Your task to perform on an android device: toggle wifi Image 0: 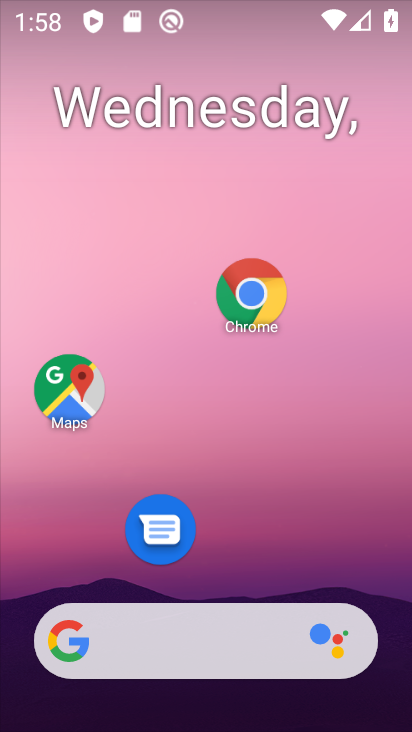
Step 0: drag from (262, 528) to (294, 171)
Your task to perform on an android device: toggle wifi Image 1: 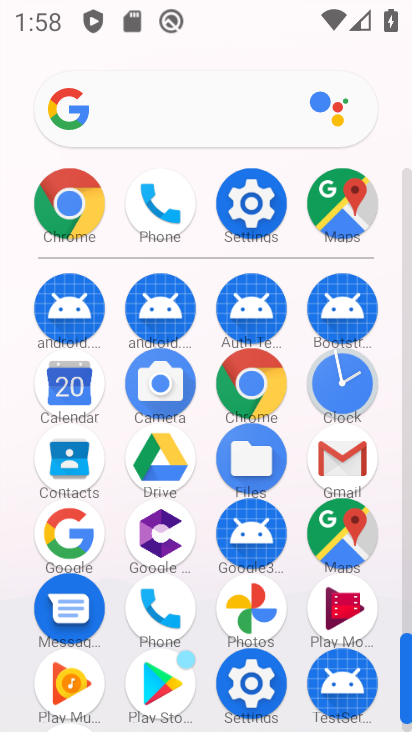
Step 1: click (272, 211)
Your task to perform on an android device: toggle wifi Image 2: 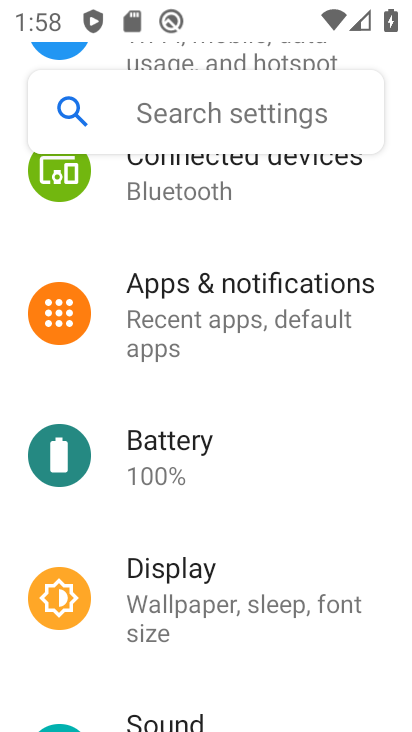
Step 2: drag from (272, 211) to (252, 544)
Your task to perform on an android device: toggle wifi Image 3: 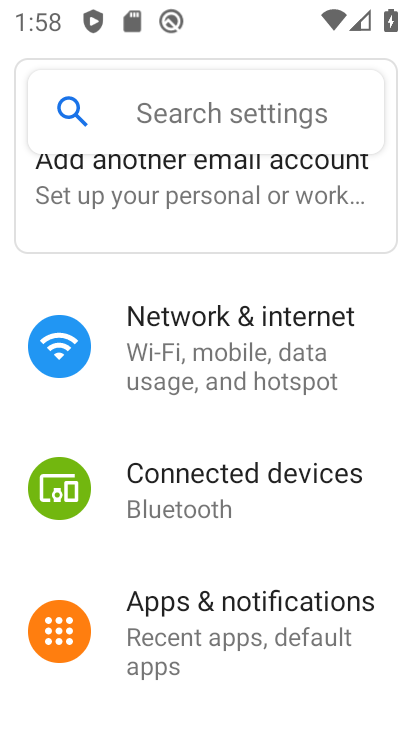
Step 3: click (268, 334)
Your task to perform on an android device: toggle wifi Image 4: 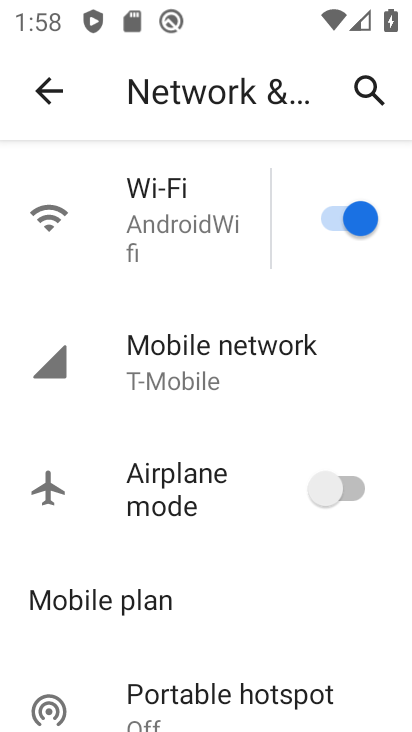
Step 4: click (333, 247)
Your task to perform on an android device: toggle wifi Image 5: 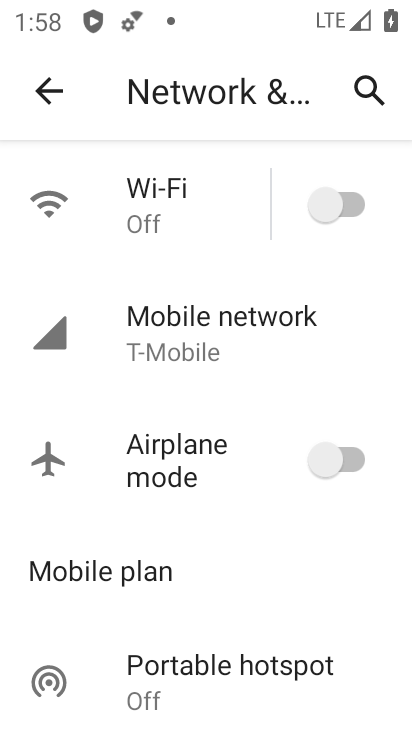
Step 5: task complete